Your task to perform on an android device: Open the phone app and click the voicemail tab. Image 0: 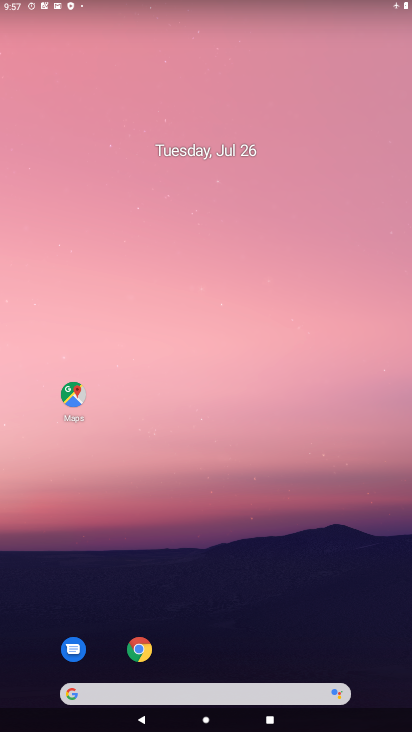
Step 0: drag from (173, 679) to (283, 65)
Your task to perform on an android device: Open the phone app and click the voicemail tab. Image 1: 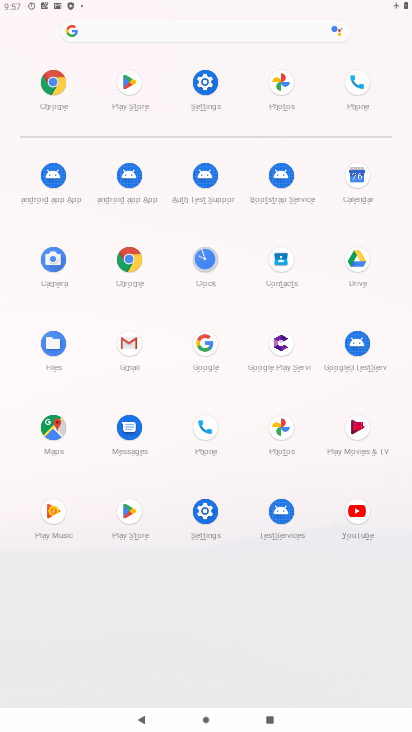
Step 1: click (198, 516)
Your task to perform on an android device: Open the phone app and click the voicemail tab. Image 2: 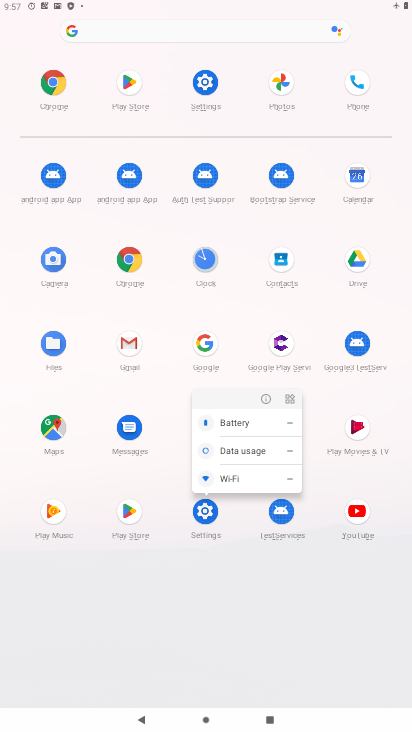
Step 2: click (260, 393)
Your task to perform on an android device: Open the phone app and click the voicemail tab. Image 3: 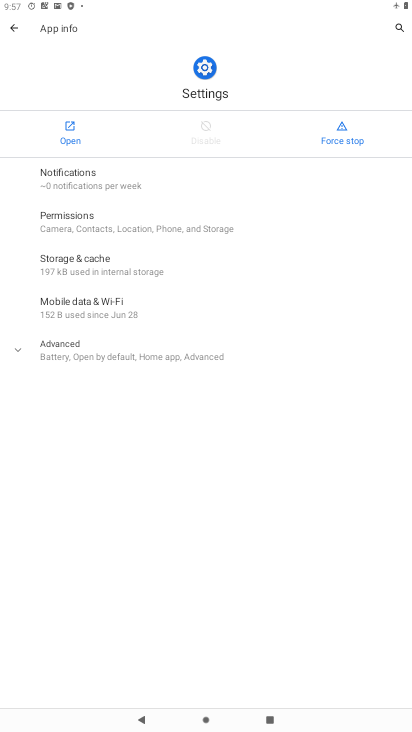
Step 3: press home button
Your task to perform on an android device: Open the phone app and click the voicemail tab. Image 4: 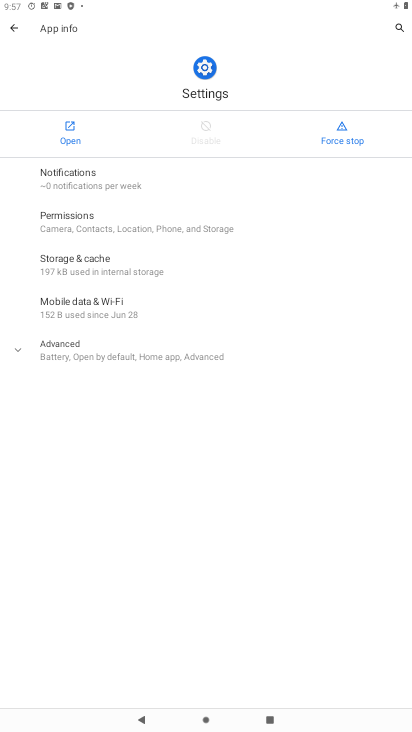
Step 4: press home button
Your task to perform on an android device: Open the phone app and click the voicemail tab. Image 5: 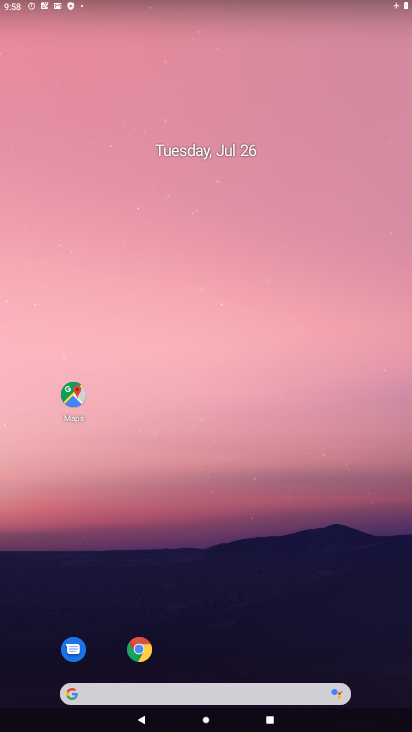
Step 5: drag from (214, 600) to (275, 106)
Your task to perform on an android device: Open the phone app and click the voicemail tab. Image 6: 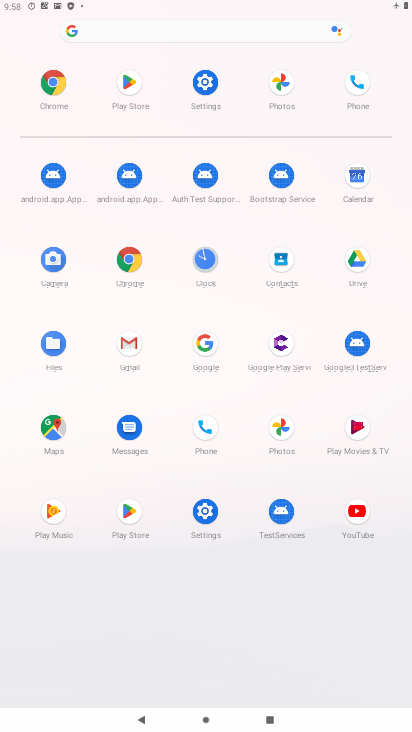
Step 6: click (202, 415)
Your task to perform on an android device: Open the phone app and click the voicemail tab. Image 7: 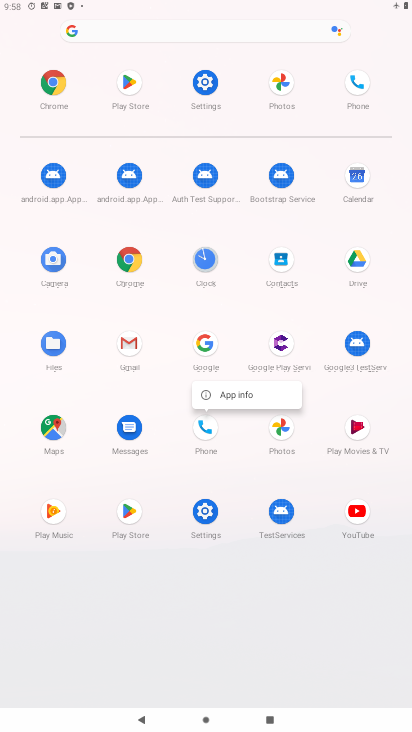
Step 7: click (229, 388)
Your task to perform on an android device: Open the phone app and click the voicemail tab. Image 8: 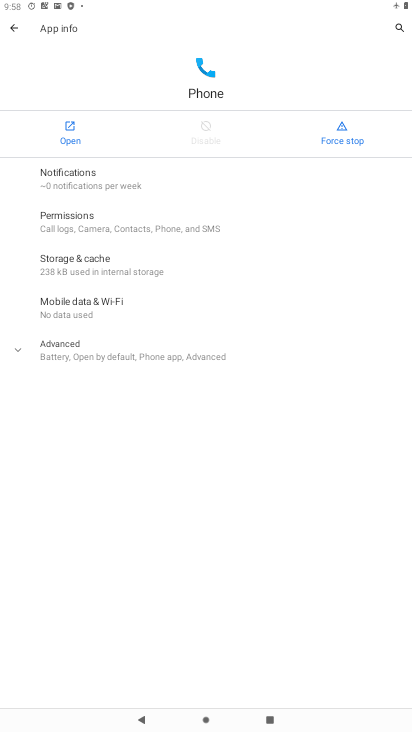
Step 8: click (69, 134)
Your task to perform on an android device: Open the phone app and click the voicemail tab. Image 9: 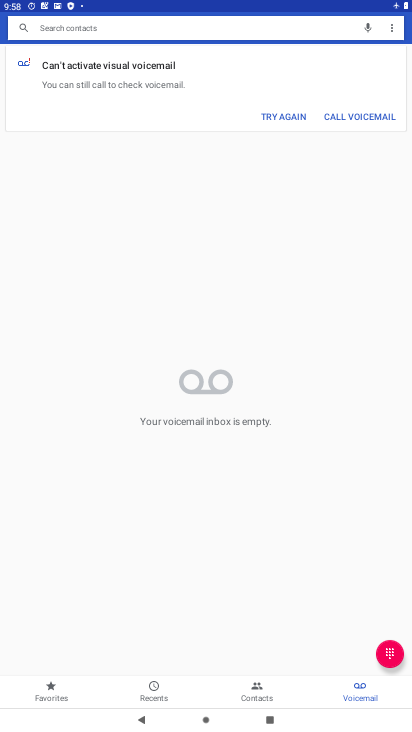
Step 9: click (347, 690)
Your task to perform on an android device: Open the phone app and click the voicemail tab. Image 10: 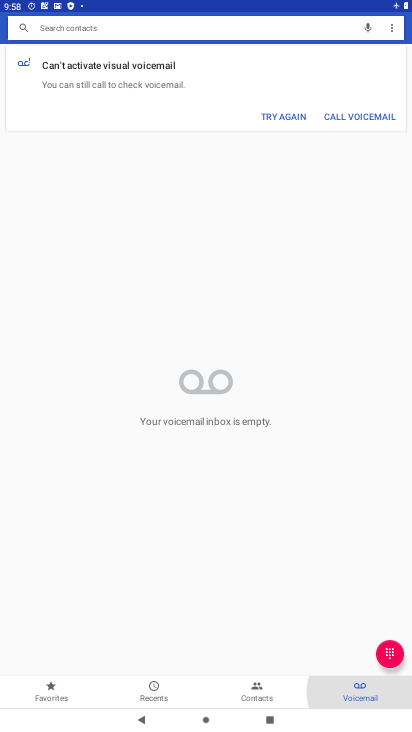
Step 10: task complete